Your task to perform on an android device: turn off notifications in google photos Image 0: 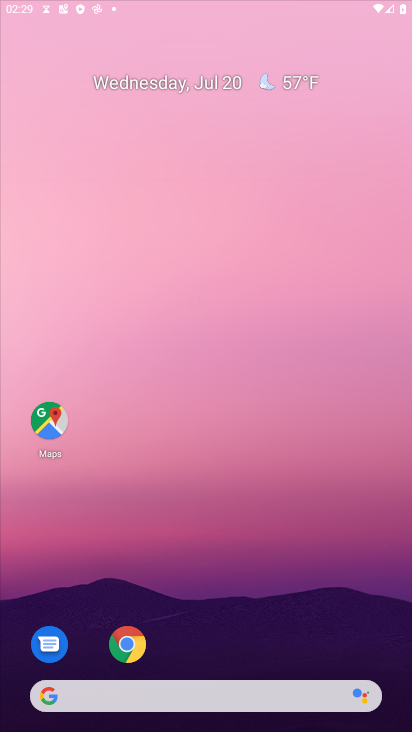
Step 0: press home button
Your task to perform on an android device: turn off notifications in google photos Image 1: 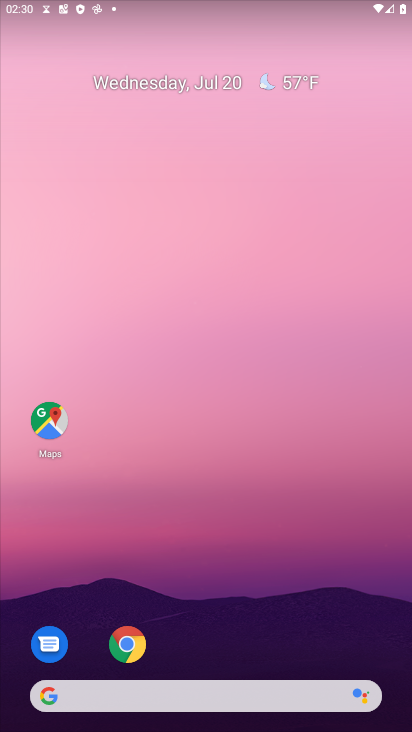
Step 1: drag from (297, 649) to (300, 39)
Your task to perform on an android device: turn off notifications in google photos Image 2: 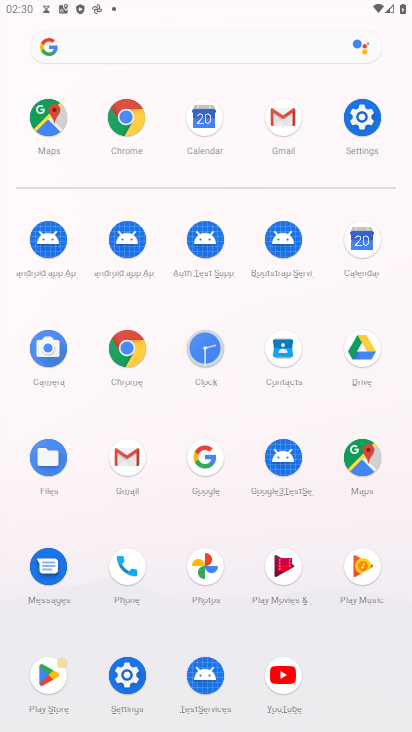
Step 2: click (207, 568)
Your task to perform on an android device: turn off notifications in google photos Image 3: 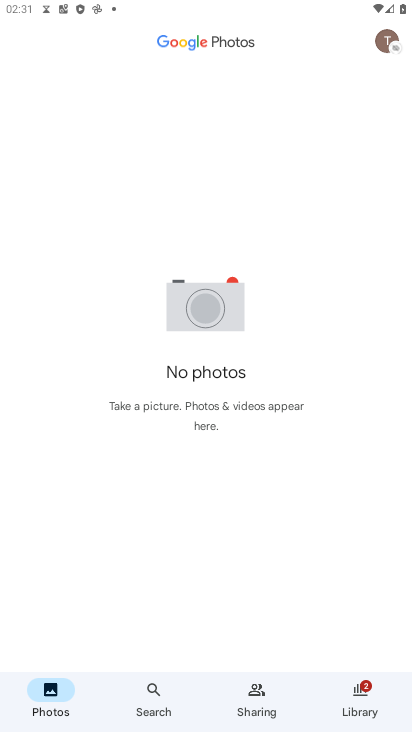
Step 3: click (392, 35)
Your task to perform on an android device: turn off notifications in google photos Image 4: 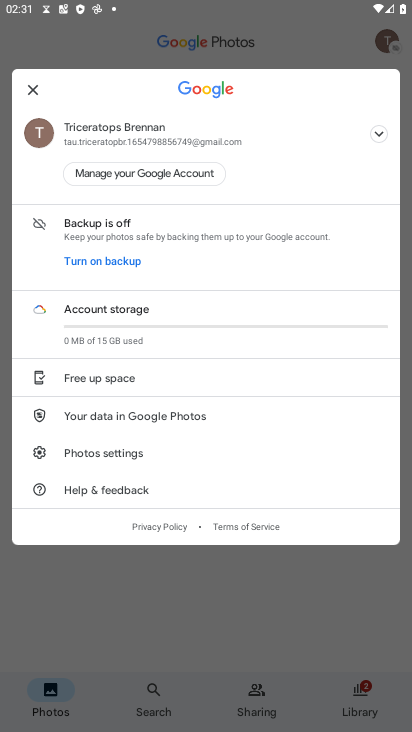
Step 4: click (101, 453)
Your task to perform on an android device: turn off notifications in google photos Image 5: 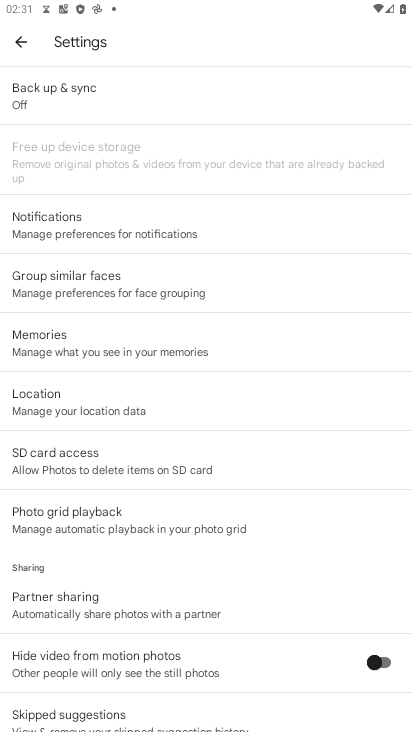
Step 5: click (40, 225)
Your task to perform on an android device: turn off notifications in google photos Image 6: 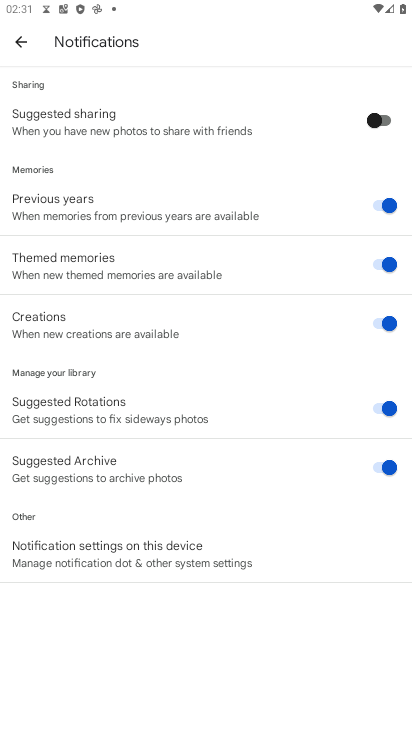
Step 6: task complete